Your task to perform on an android device: clear all cookies in the chrome app Image 0: 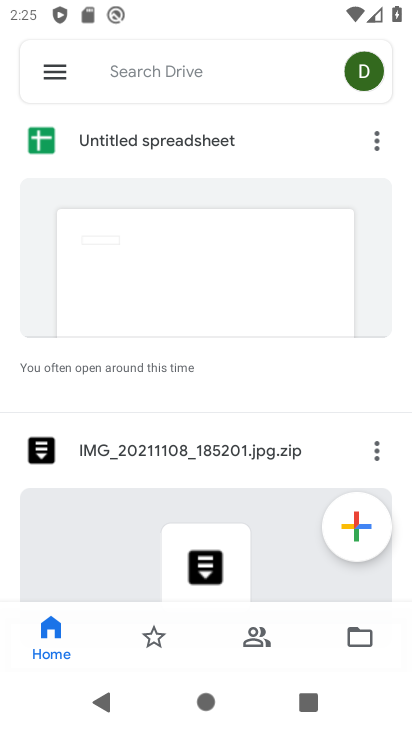
Step 0: press home button
Your task to perform on an android device: clear all cookies in the chrome app Image 1: 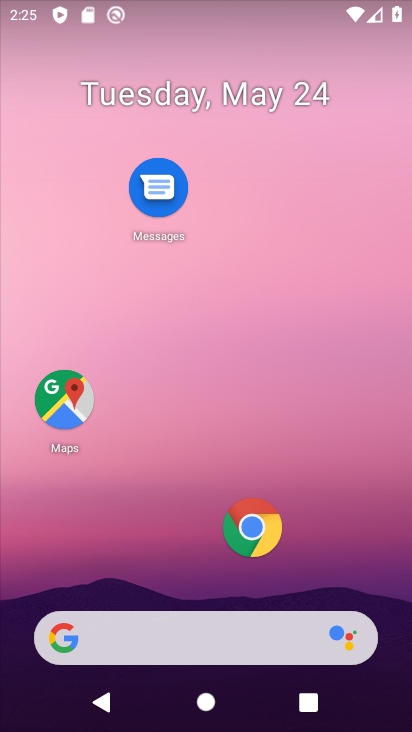
Step 1: click (256, 530)
Your task to perform on an android device: clear all cookies in the chrome app Image 2: 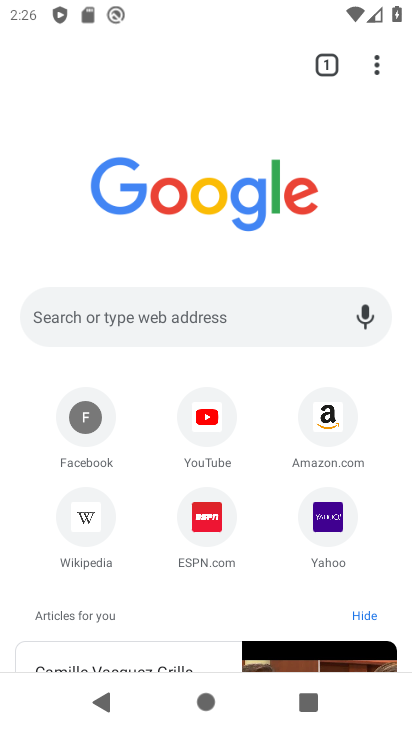
Step 2: click (375, 65)
Your task to perform on an android device: clear all cookies in the chrome app Image 3: 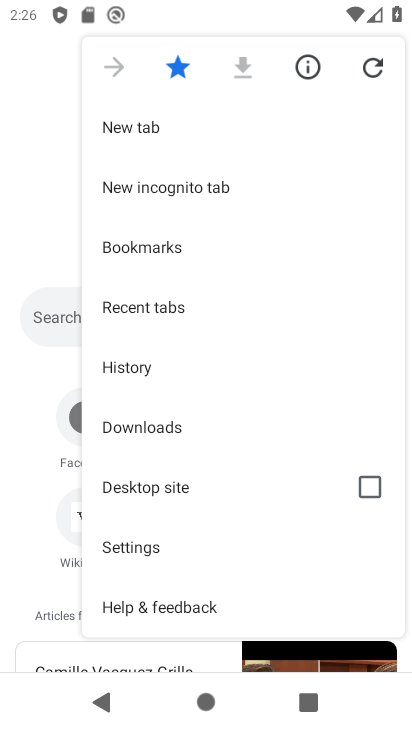
Step 3: click (154, 368)
Your task to perform on an android device: clear all cookies in the chrome app Image 4: 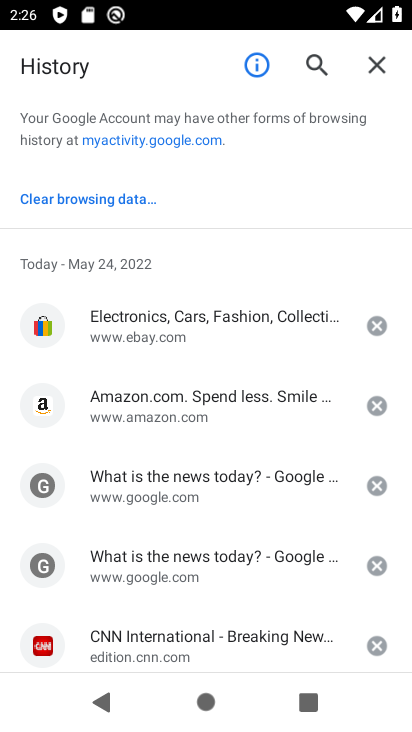
Step 4: click (128, 203)
Your task to perform on an android device: clear all cookies in the chrome app Image 5: 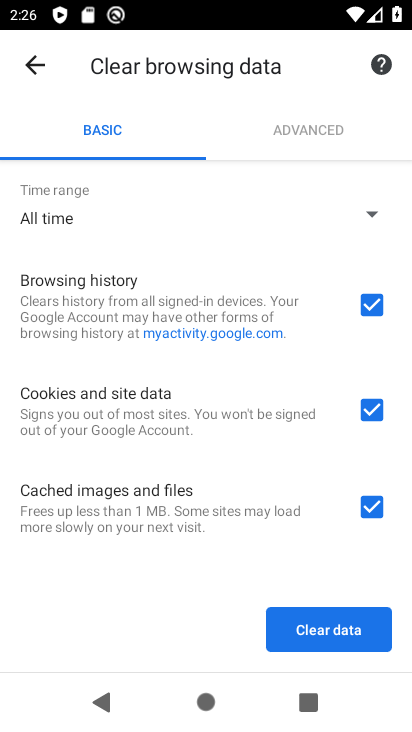
Step 5: click (371, 502)
Your task to perform on an android device: clear all cookies in the chrome app Image 6: 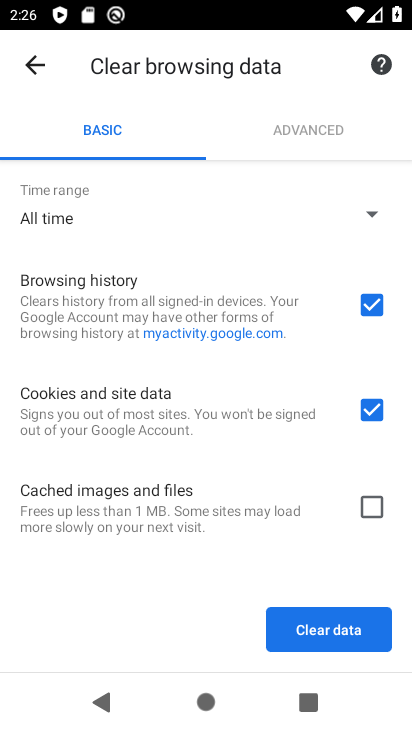
Step 6: click (371, 408)
Your task to perform on an android device: clear all cookies in the chrome app Image 7: 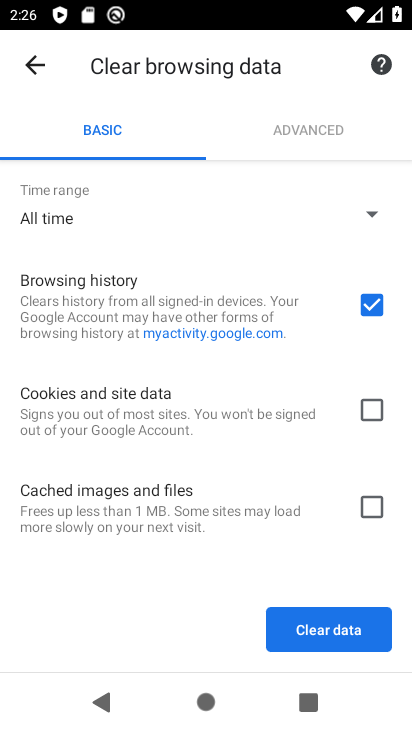
Step 7: click (330, 620)
Your task to perform on an android device: clear all cookies in the chrome app Image 8: 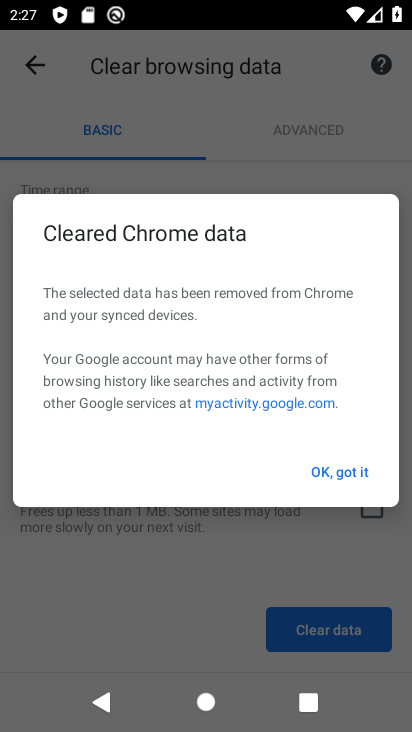
Step 8: click (337, 472)
Your task to perform on an android device: clear all cookies in the chrome app Image 9: 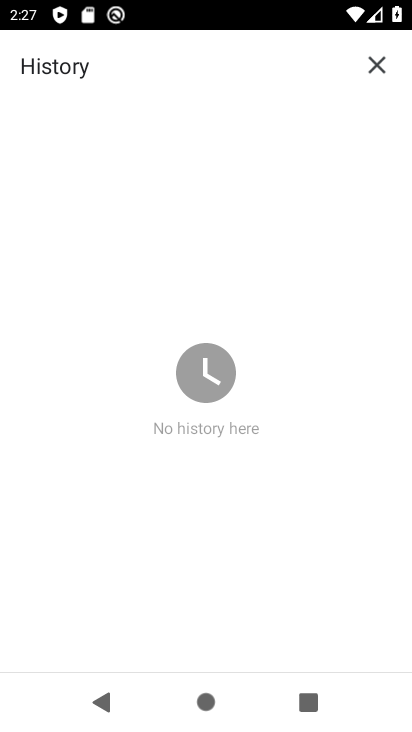
Step 9: task complete